Your task to perform on an android device: choose inbox layout in the gmail app Image 0: 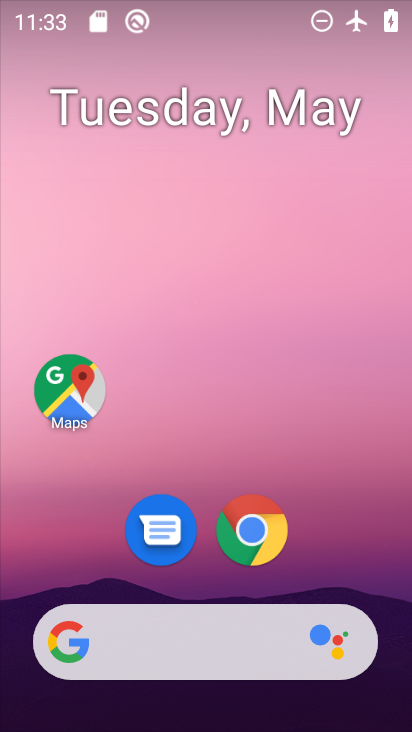
Step 0: drag from (340, 524) to (279, 86)
Your task to perform on an android device: choose inbox layout in the gmail app Image 1: 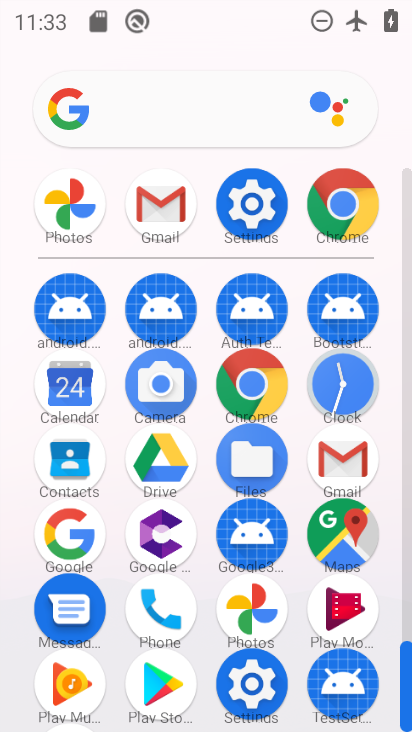
Step 1: click (173, 194)
Your task to perform on an android device: choose inbox layout in the gmail app Image 2: 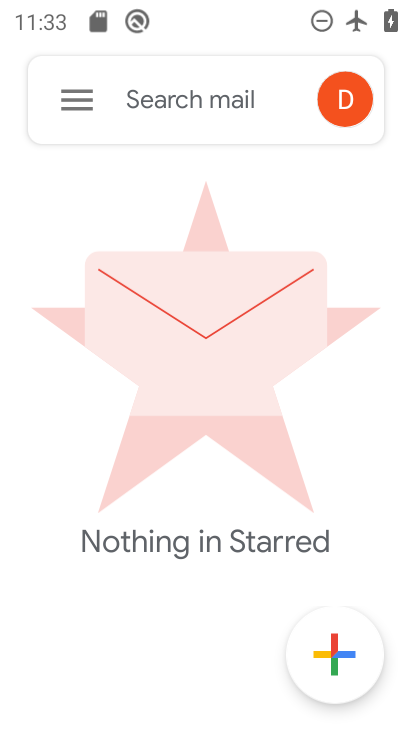
Step 2: click (61, 96)
Your task to perform on an android device: choose inbox layout in the gmail app Image 3: 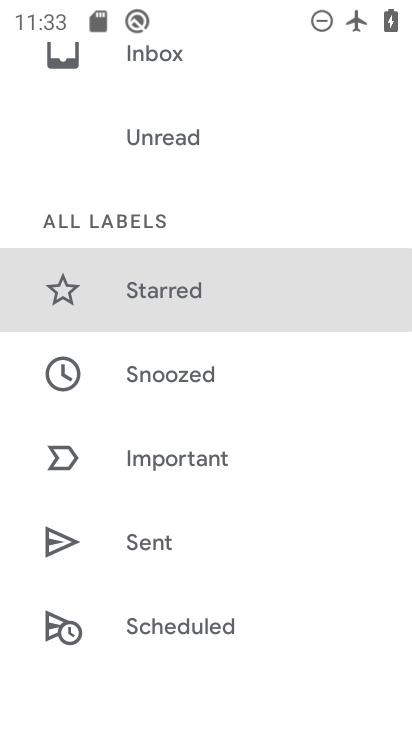
Step 3: drag from (125, 602) to (225, 122)
Your task to perform on an android device: choose inbox layout in the gmail app Image 4: 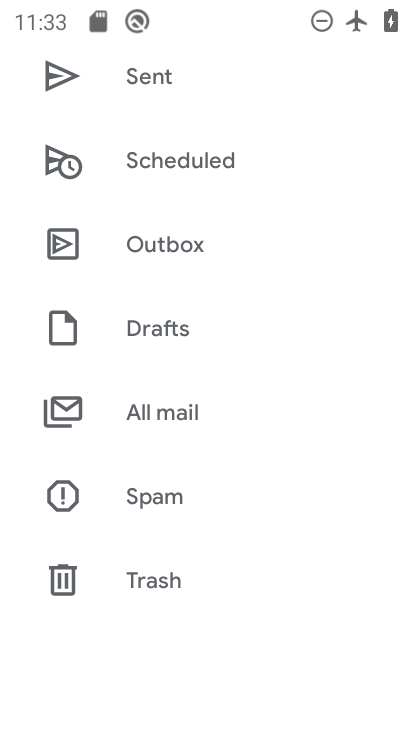
Step 4: drag from (166, 617) to (266, 217)
Your task to perform on an android device: choose inbox layout in the gmail app Image 5: 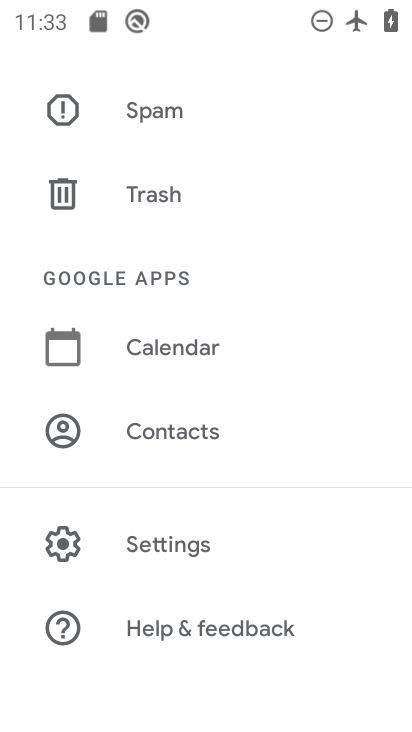
Step 5: drag from (183, 538) to (220, 295)
Your task to perform on an android device: choose inbox layout in the gmail app Image 6: 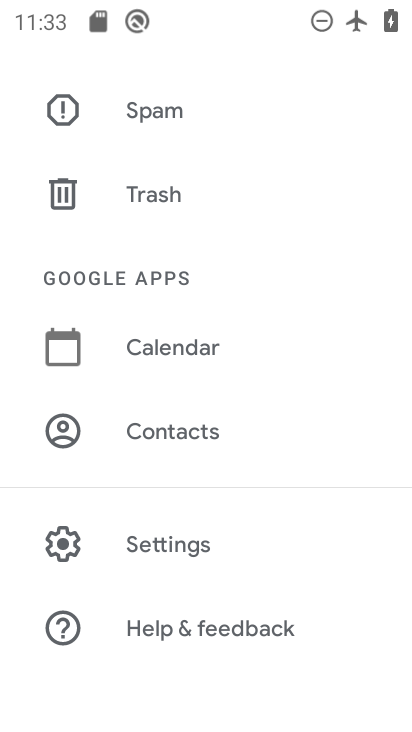
Step 6: click (155, 556)
Your task to perform on an android device: choose inbox layout in the gmail app Image 7: 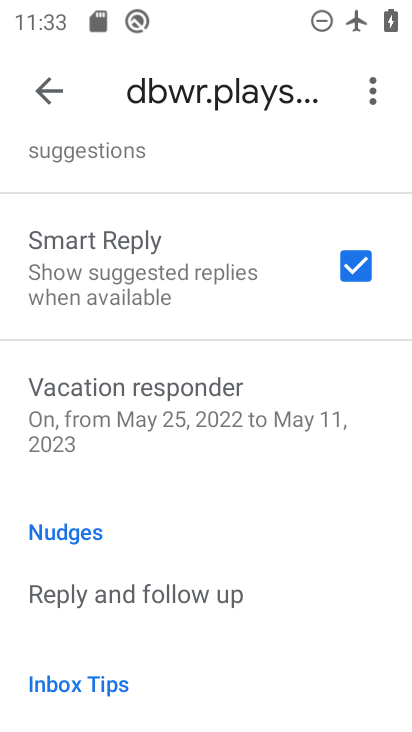
Step 7: drag from (191, 244) to (177, 727)
Your task to perform on an android device: choose inbox layout in the gmail app Image 8: 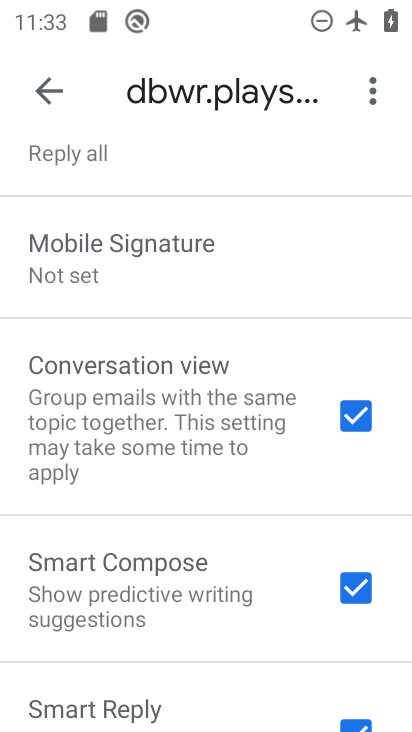
Step 8: drag from (132, 152) to (159, 731)
Your task to perform on an android device: choose inbox layout in the gmail app Image 9: 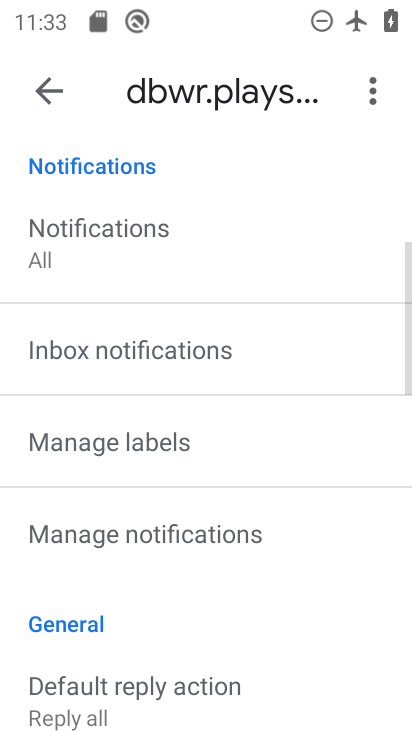
Step 9: drag from (148, 260) to (175, 691)
Your task to perform on an android device: choose inbox layout in the gmail app Image 10: 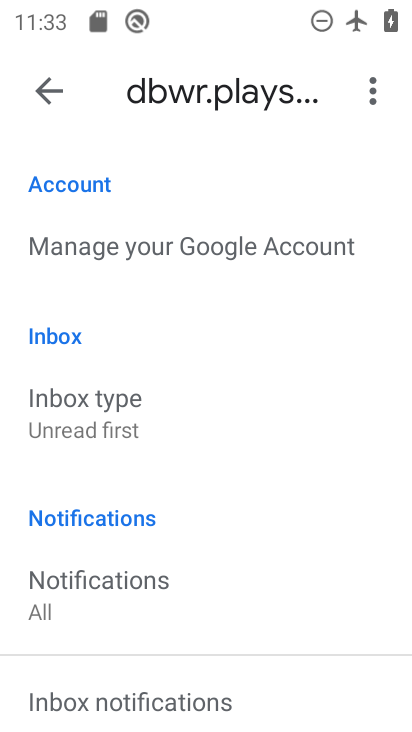
Step 10: click (106, 394)
Your task to perform on an android device: choose inbox layout in the gmail app Image 11: 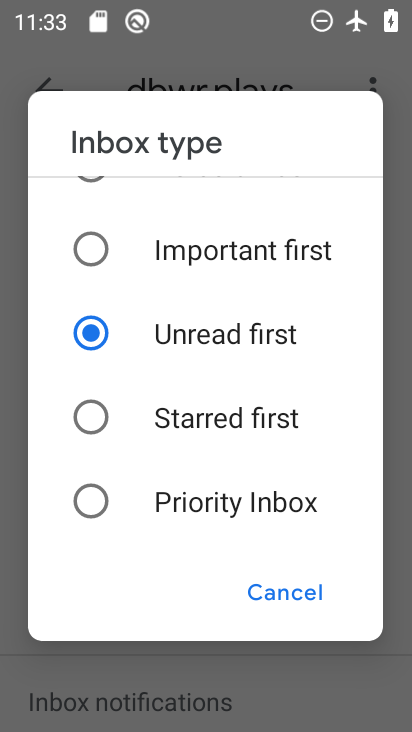
Step 11: task complete